Your task to perform on an android device: Open Youtube and go to the subscriptions tab Image 0: 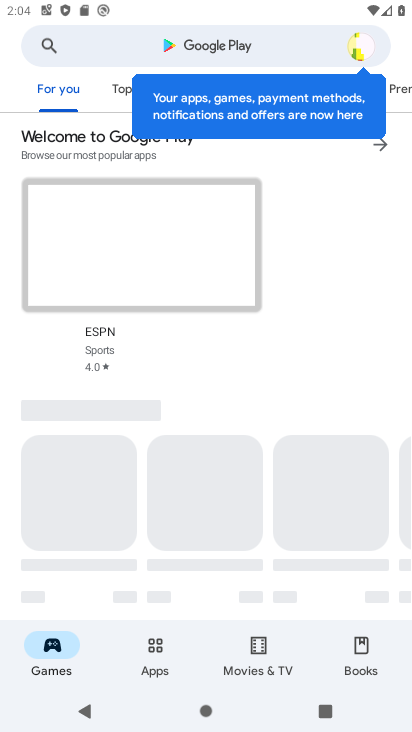
Step 0: press back button
Your task to perform on an android device: Open Youtube and go to the subscriptions tab Image 1: 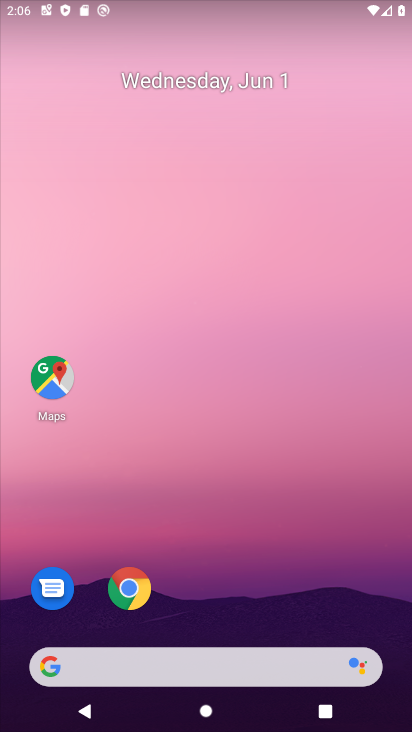
Step 1: drag from (247, 598) to (244, 12)
Your task to perform on an android device: Open Youtube and go to the subscriptions tab Image 2: 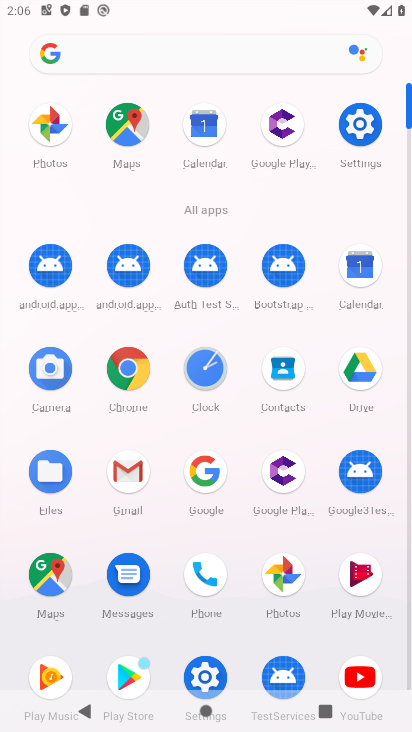
Step 2: click (355, 669)
Your task to perform on an android device: Open Youtube and go to the subscriptions tab Image 3: 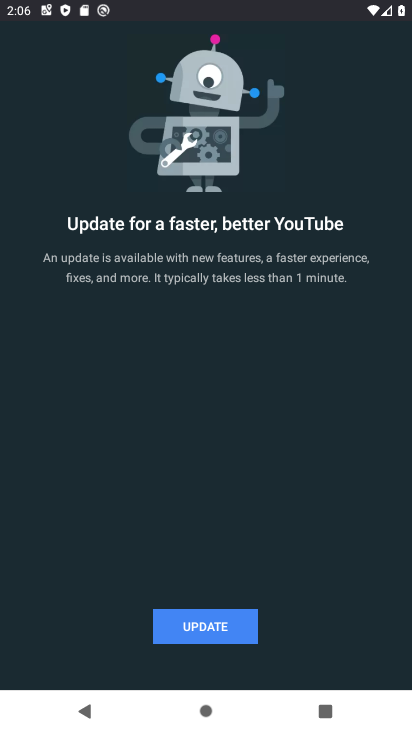
Step 3: click (107, 624)
Your task to perform on an android device: Open Youtube and go to the subscriptions tab Image 4: 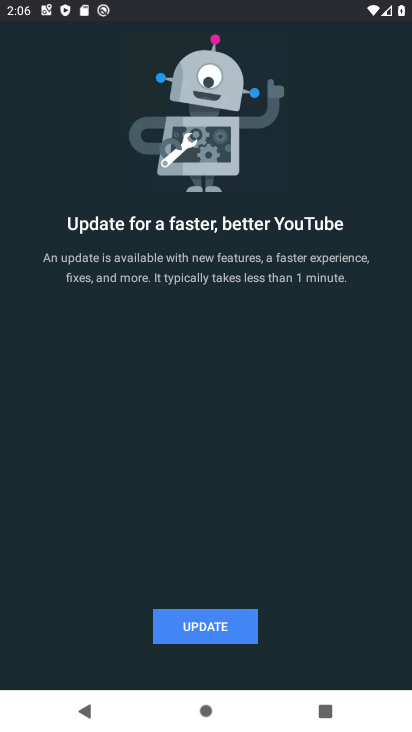
Step 4: click (194, 614)
Your task to perform on an android device: Open Youtube and go to the subscriptions tab Image 5: 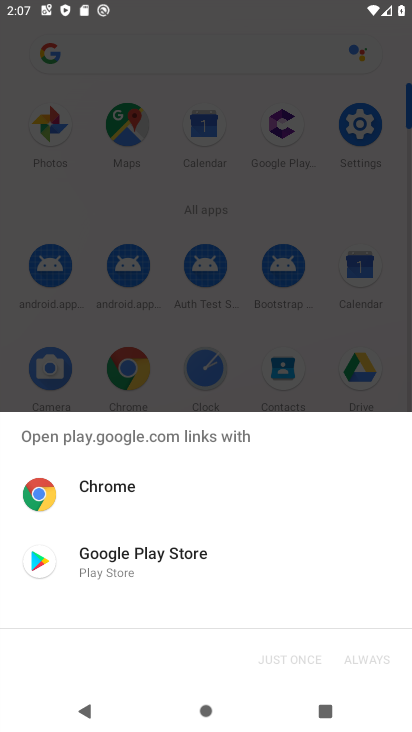
Step 5: click (181, 556)
Your task to perform on an android device: Open Youtube and go to the subscriptions tab Image 6: 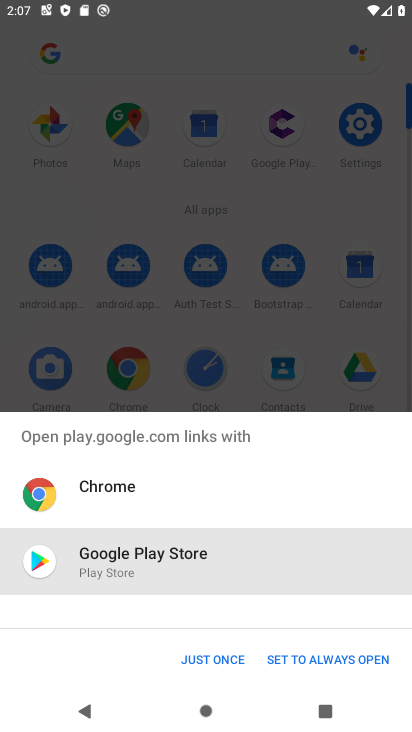
Step 6: click (223, 651)
Your task to perform on an android device: Open Youtube and go to the subscriptions tab Image 7: 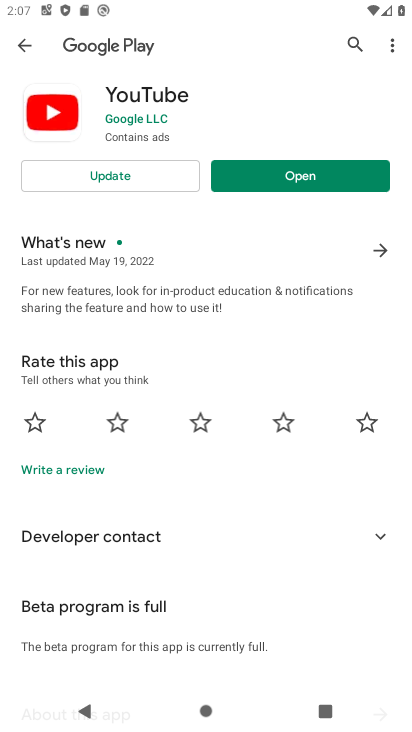
Step 7: click (112, 175)
Your task to perform on an android device: Open Youtube and go to the subscriptions tab Image 8: 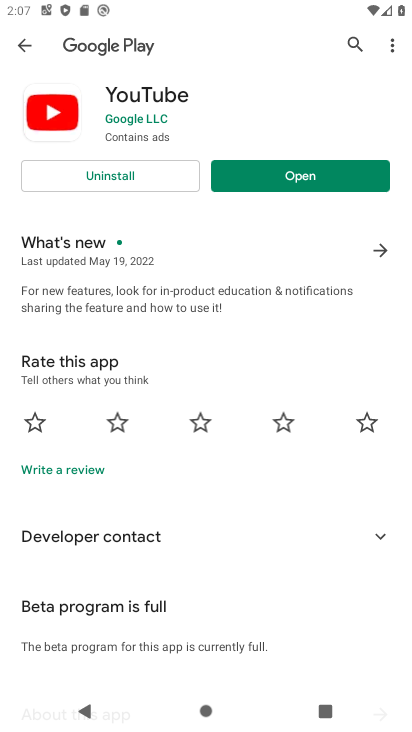
Step 8: click (298, 174)
Your task to perform on an android device: Open Youtube and go to the subscriptions tab Image 9: 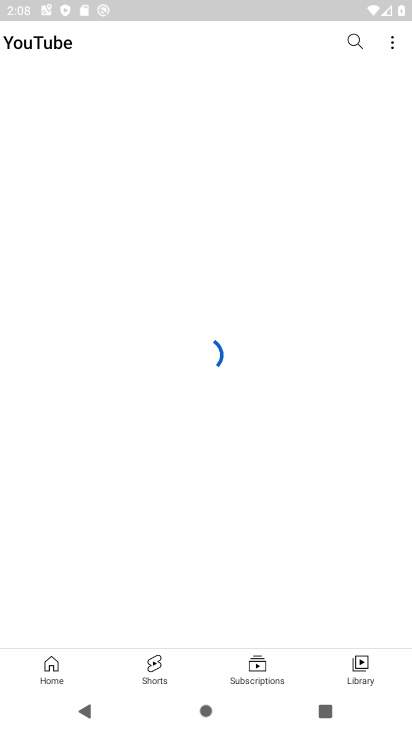
Step 9: click (253, 668)
Your task to perform on an android device: Open Youtube and go to the subscriptions tab Image 10: 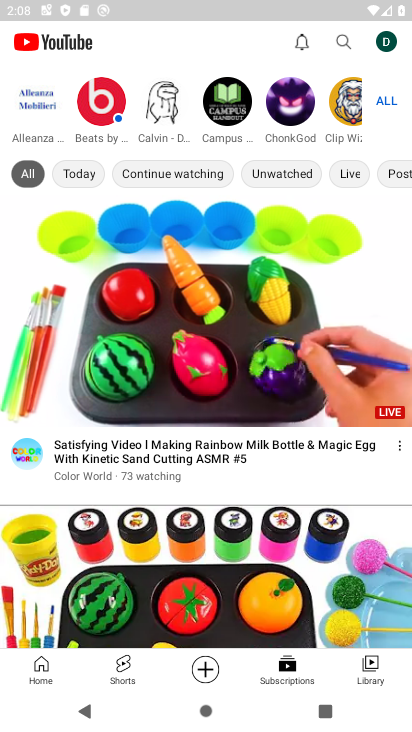
Step 10: click (286, 677)
Your task to perform on an android device: Open Youtube and go to the subscriptions tab Image 11: 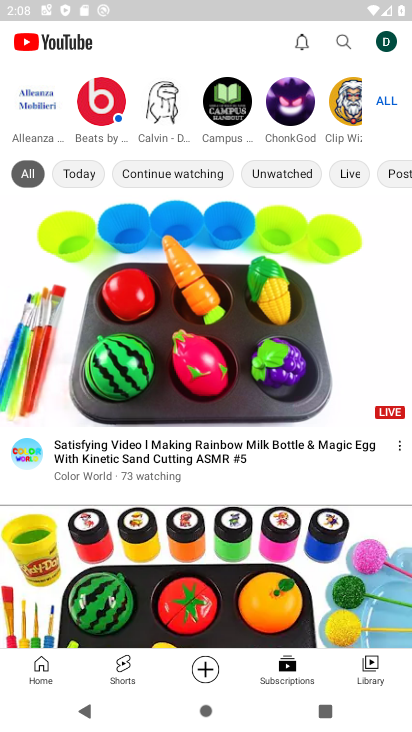
Step 11: task complete